Your task to perform on an android device: check battery use Image 0: 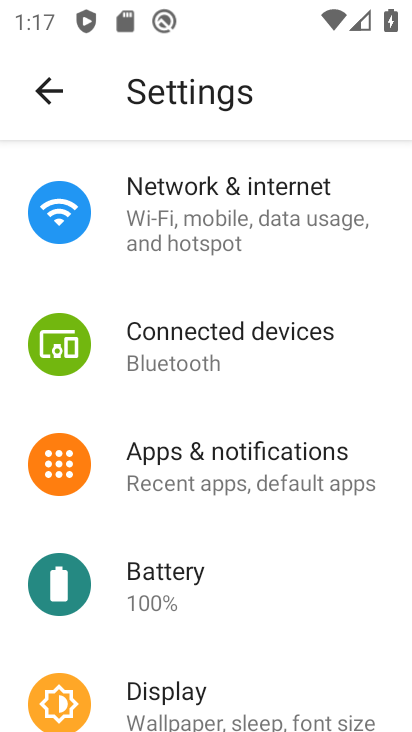
Step 0: click (170, 591)
Your task to perform on an android device: check battery use Image 1: 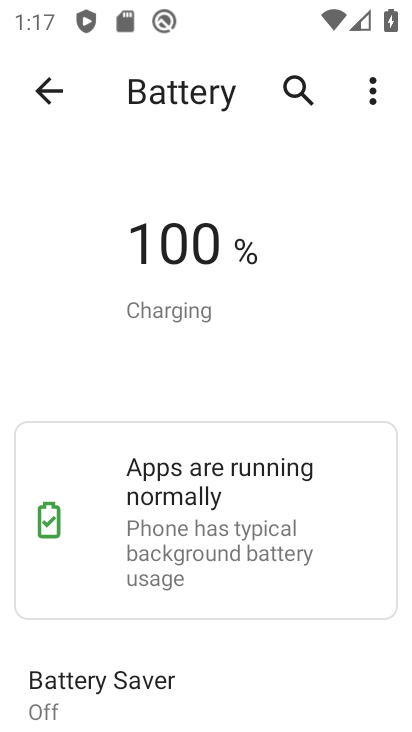
Step 1: click (350, 84)
Your task to perform on an android device: check battery use Image 2: 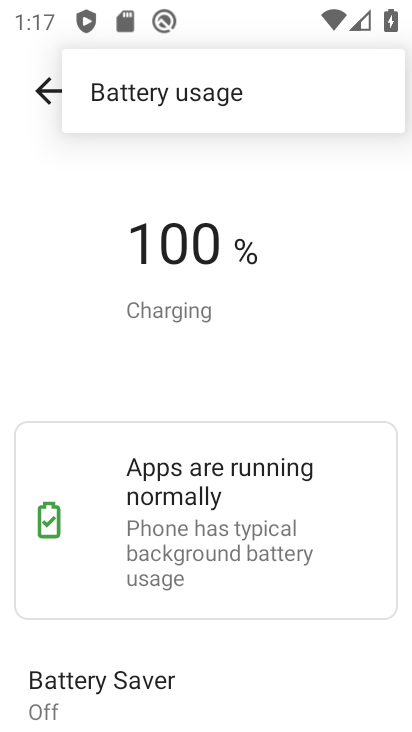
Step 2: click (237, 109)
Your task to perform on an android device: check battery use Image 3: 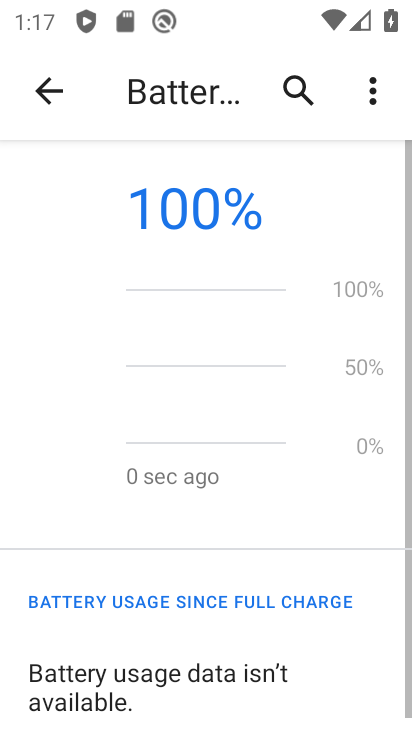
Step 3: task complete